Your task to perform on an android device: Do I have any events tomorrow? Image 0: 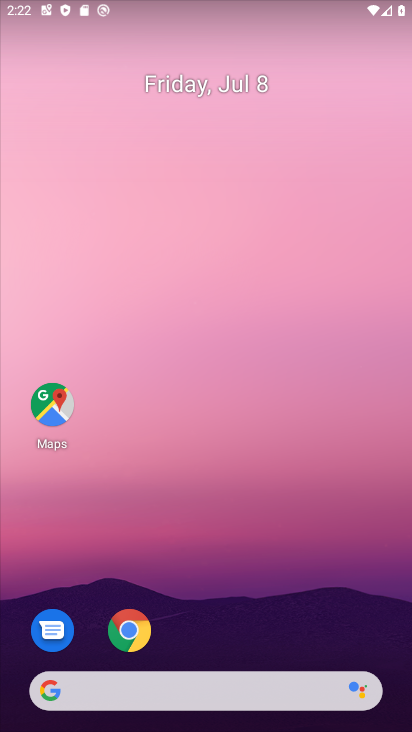
Step 0: drag from (240, 618) to (263, 171)
Your task to perform on an android device: Do I have any events tomorrow? Image 1: 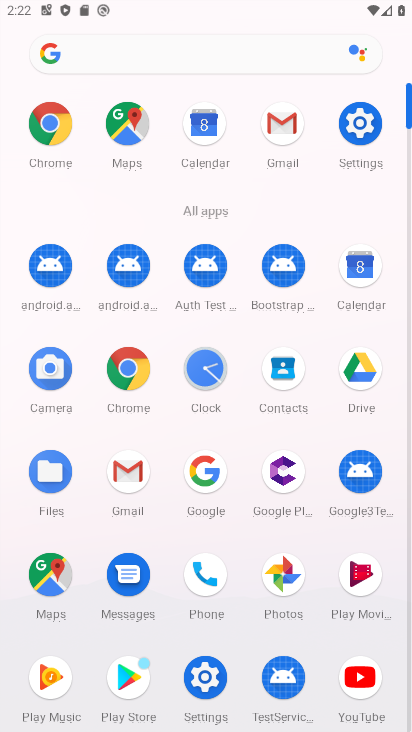
Step 1: click (207, 160)
Your task to perform on an android device: Do I have any events tomorrow? Image 2: 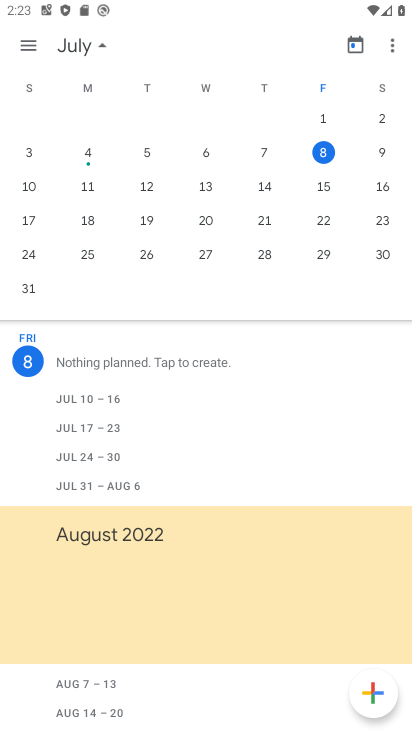
Step 2: click (373, 162)
Your task to perform on an android device: Do I have any events tomorrow? Image 3: 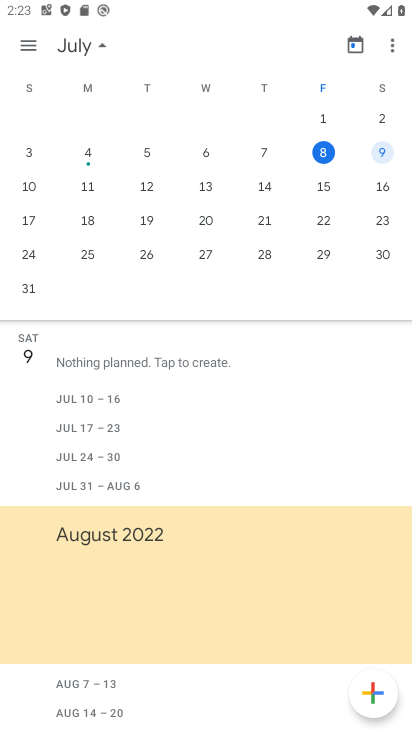
Step 3: task complete